Your task to perform on an android device: turn on improve location accuracy Image 0: 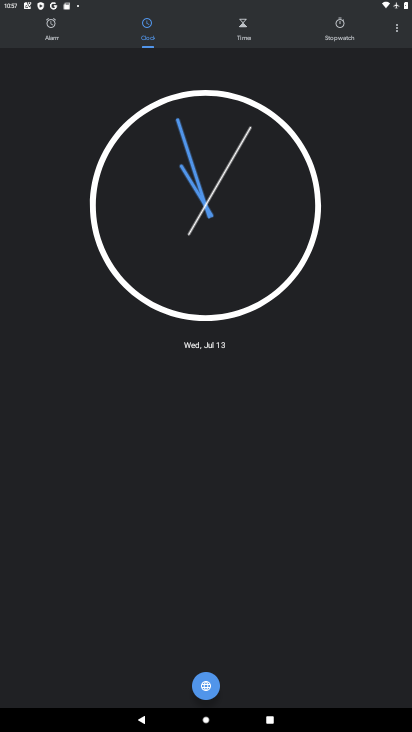
Step 0: press home button
Your task to perform on an android device: turn on improve location accuracy Image 1: 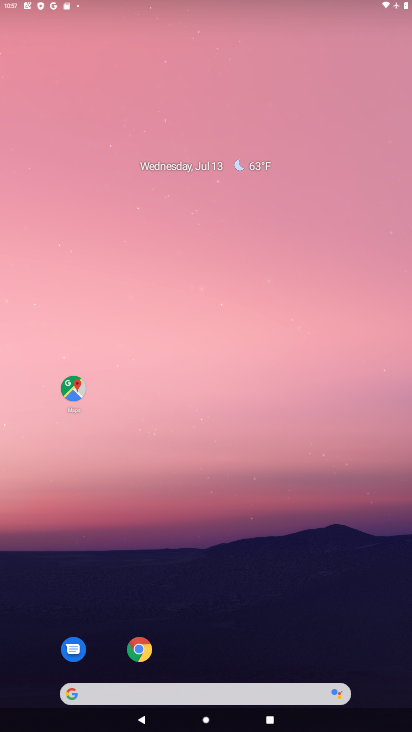
Step 1: drag from (202, 567) to (228, 137)
Your task to perform on an android device: turn on improve location accuracy Image 2: 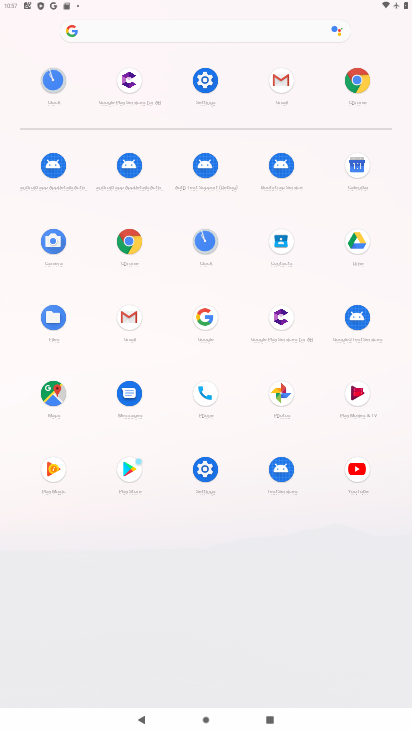
Step 2: click (203, 70)
Your task to perform on an android device: turn on improve location accuracy Image 3: 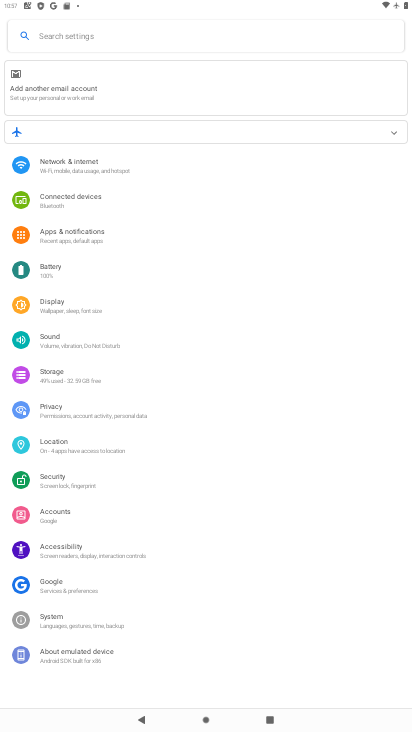
Step 3: click (95, 448)
Your task to perform on an android device: turn on improve location accuracy Image 4: 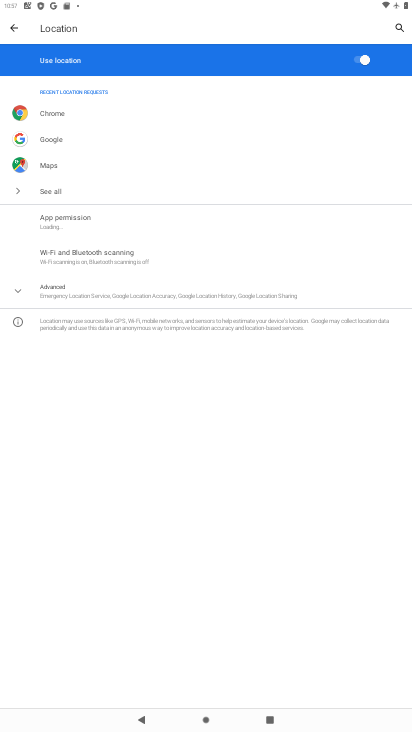
Step 4: click (152, 291)
Your task to perform on an android device: turn on improve location accuracy Image 5: 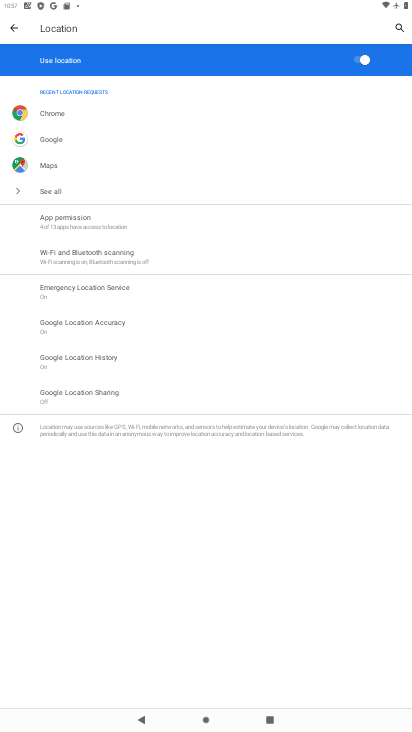
Step 5: click (114, 325)
Your task to perform on an android device: turn on improve location accuracy Image 6: 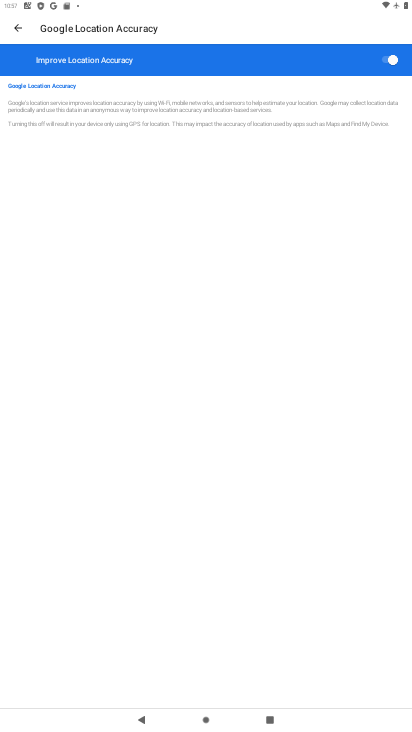
Step 6: task complete